Your task to perform on an android device: see sites visited before in the chrome app Image 0: 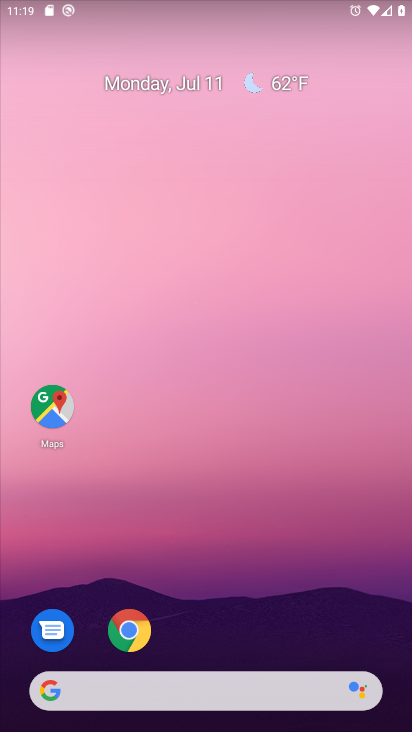
Step 0: click (138, 627)
Your task to perform on an android device: see sites visited before in the chrome app Image 1: 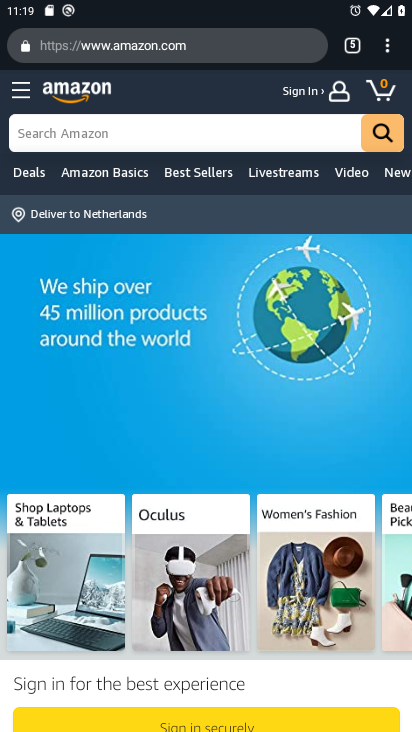
Step 1: click (390, 50)
Your task to perform on an android device: see sites visited before in the chrome app Image 2: 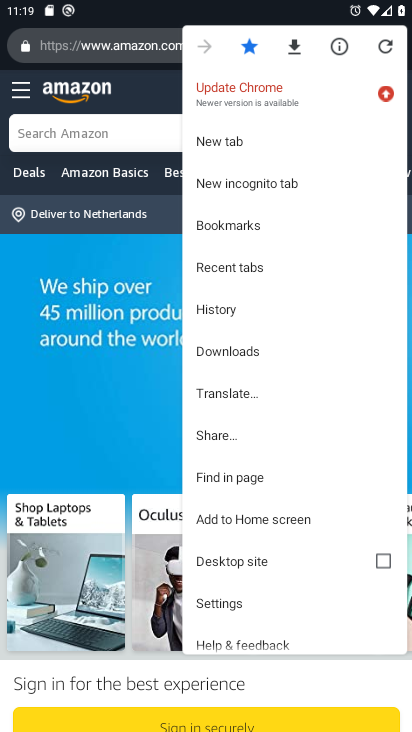
Step 2: click (230, 267)
Your task to perform on an android device: see sites visited before in the chrome app Image 3: 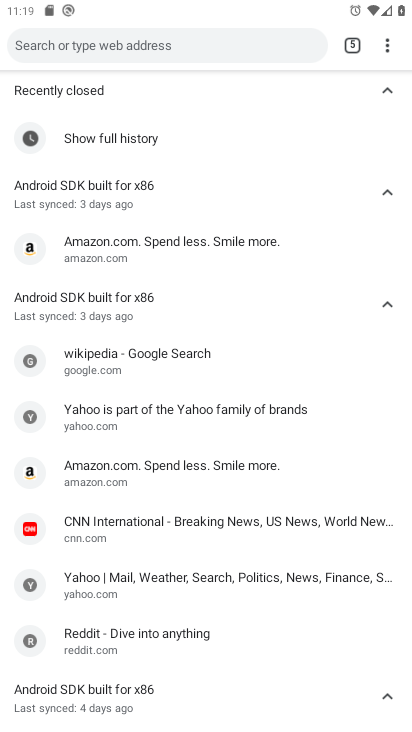
Step 3: task complete